Your task to perform on an android device: Go to Reddit.com Image 0: 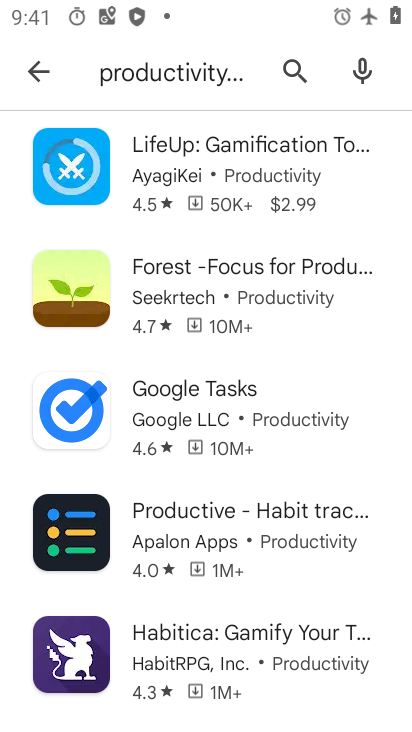
Step 0: press home button
Your task to perform on an android device: Go to Reddit.com Image 1: 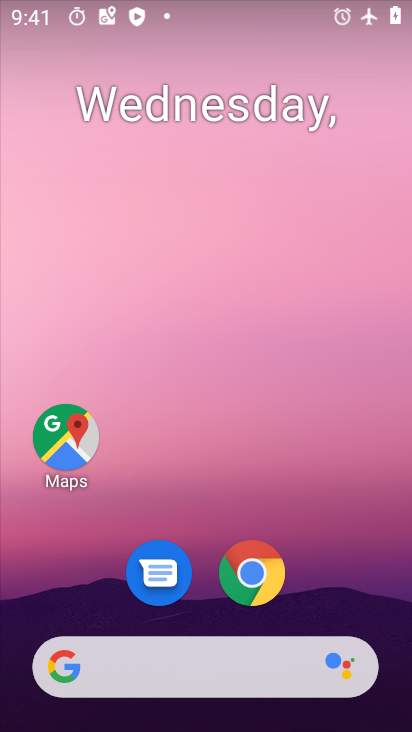
Step 1: click (260, 573)
Your task to perform on an android device: Go to Reddit.com Image 2: 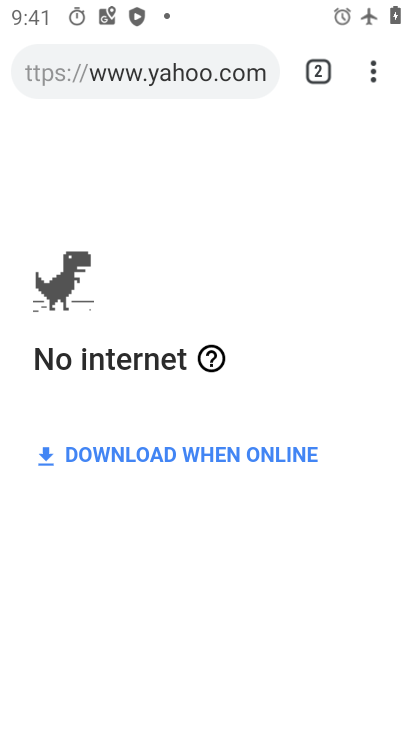
Step 2: click (253, 73)
Your task to perform on an android device: Go to Reddit.com Image 3: 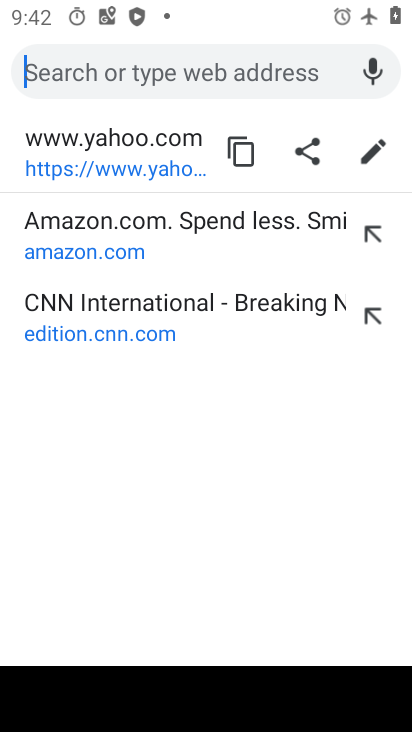
Step 3: type "reddit"
Your task to perform on an android device: Go to Reddit.com Image 4: 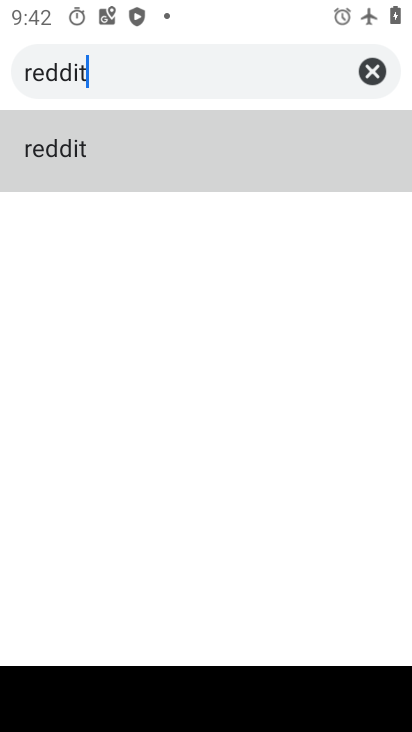
Step 4: click (347, 146)
Your task to perform on an android device: Go to Reddit.com Image 5: 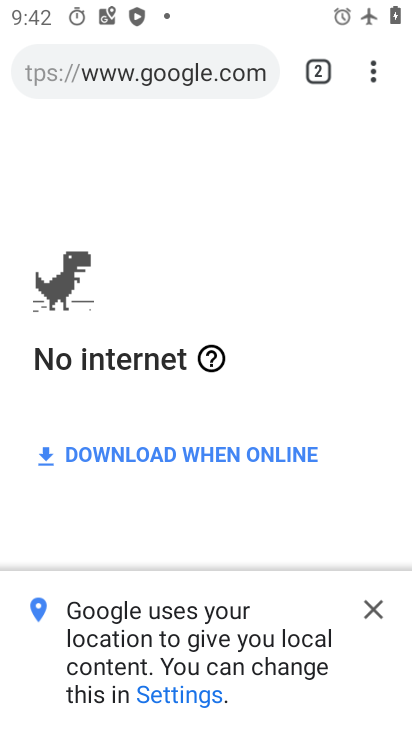
Step 5: task complete